Your task to perform on an android device: Open location settings Image 0: 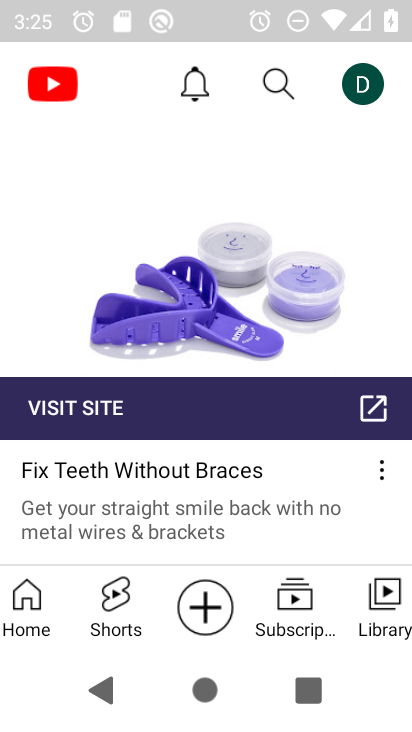
Step 0: press home button
Your task to perform on an android device: Open location settings Image 1: 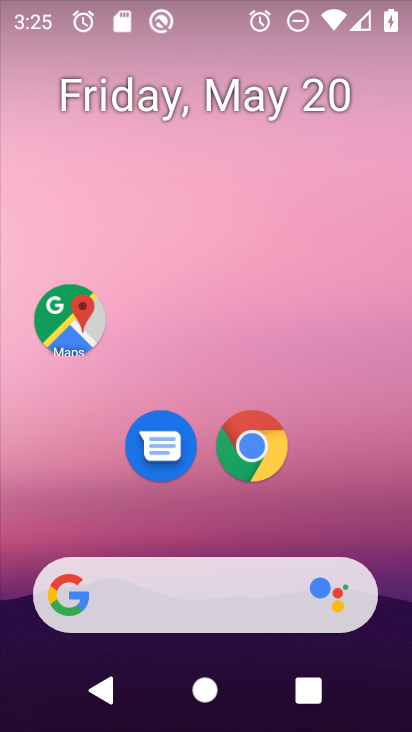
Step 1: drag from (357, 511) to (400, 533)
Your task to perform on an android device: Open location settings Image 2: 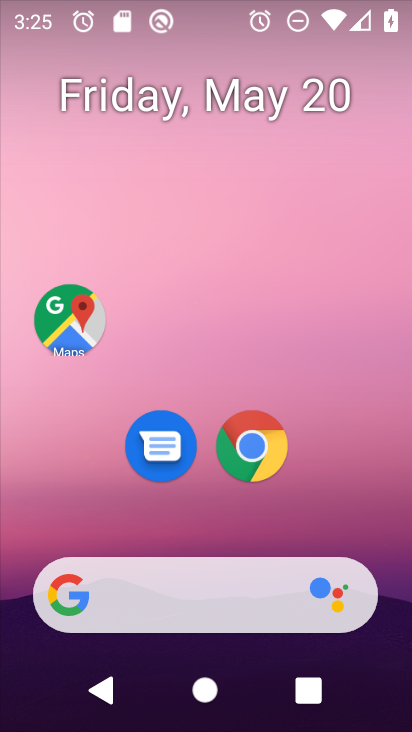
Step 2: drag from (368, 554) to (287, 19)
Your task to perform on an android device: Open location settings Image 3: 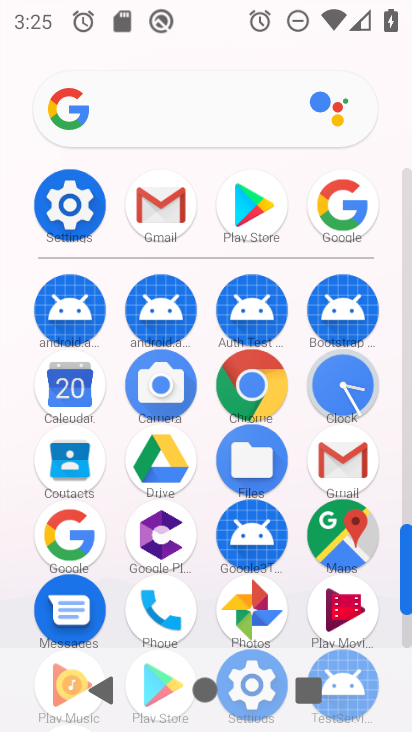
Step 3: click (76, 193)
Your task to perform on an android device: Open location settings Image 4: 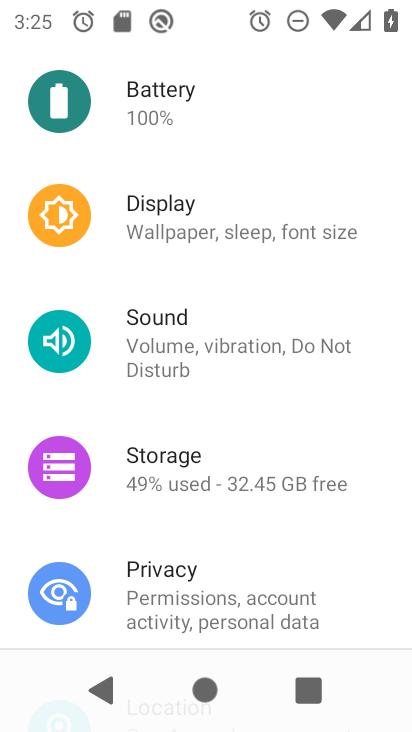
Step 4: drag from (357, 539) to (356, 229)
Your task to perform on an android device: Open location settings Image 5: 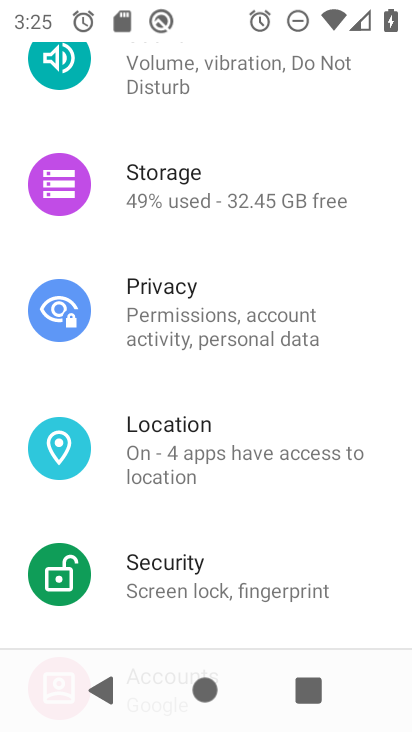
Step 5: click (160, 456)
Your task to perform on an android device: Open location settings Image 6: 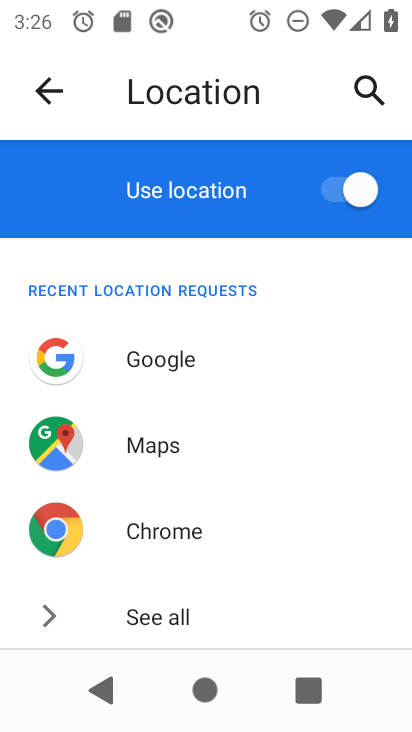
Step 6: task complete